Your task to perform on an android device: turn on the 24-hour format for clock Image 0: 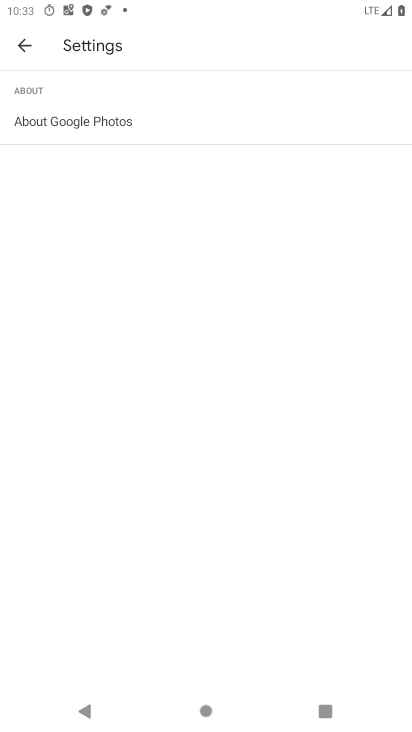
Step 0: press home button
Your task to perform on an android device: turn on the 24-hour format for clock Image 1: 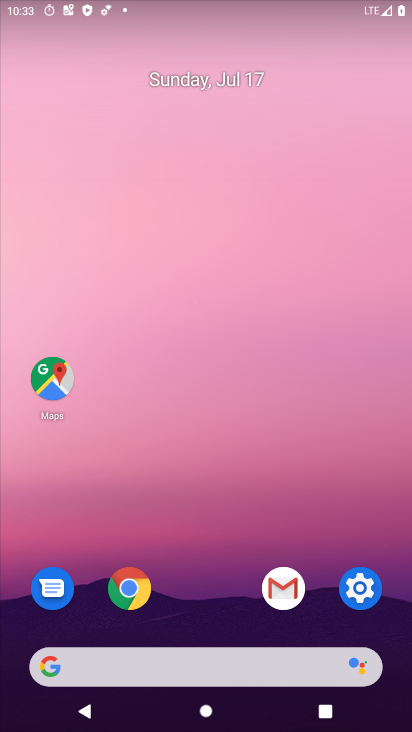
Step 1: drag from (236, 695) to (173, 218)
Your task to perform on an android device: turn on the 24-hour format for clock Image 2: 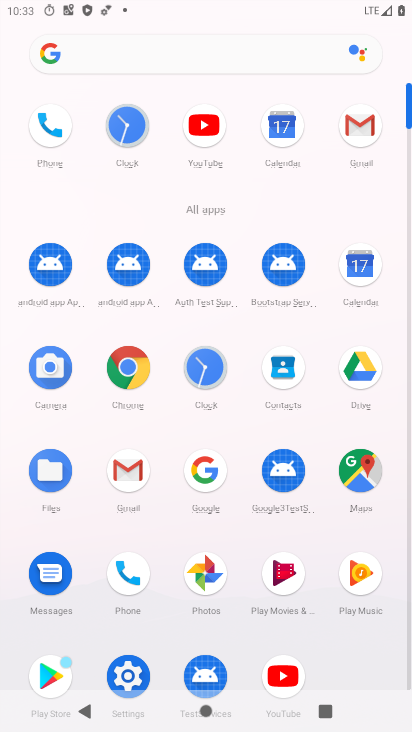
Step 2: click (221, 365)
Your task to perform on an android device: turn on the 24-hour format for clock Image 3: 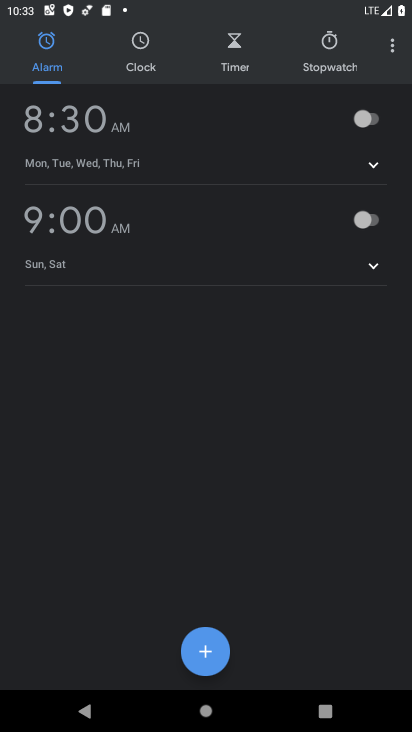
Step 3: click (389, 48)
Your task to perform on an android device: turn on the 24-hour format for clock Image 4: 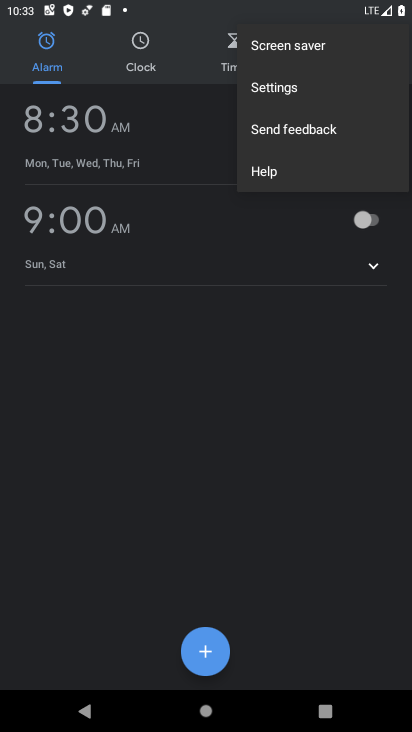
Step 4: click (258, 103)
Your task to perform on an android device: turn on the 24-hour format for clock Image 5: 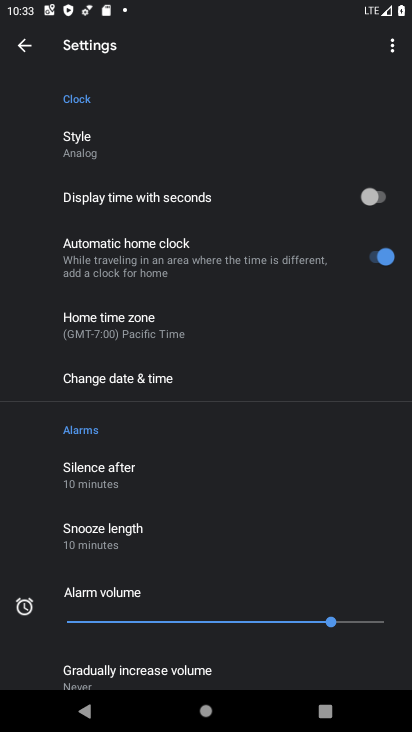
Step 5: click (174, 400)
Your task to perform on an android device: turn on the 24-hour format for clock Image 6: 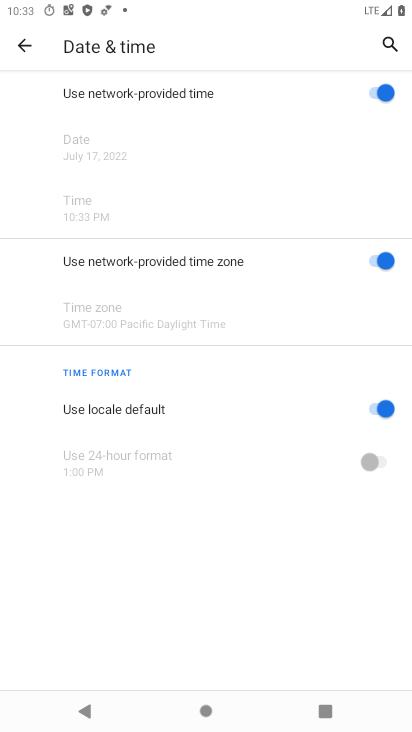
Step 6: click (365, 462)
Your task to perform on an android device: turn on the 24-hour format for clock Image 7: 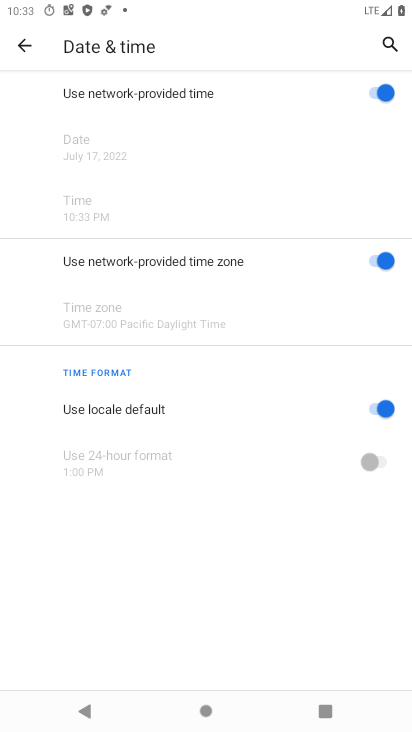
Step 7: click (371, 418)
Your task to perform on an android device: turn on the 24-hour format for clock Image 8: 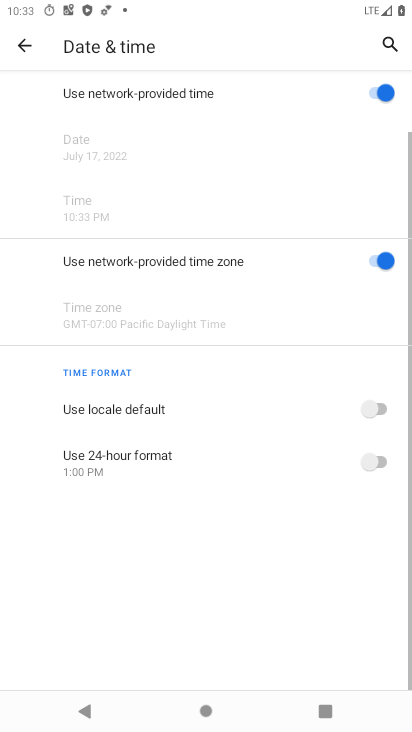
Step 8: click (370, 466)
Your task to perform on an android device: turn on the 24-hour format for clock Image 9: 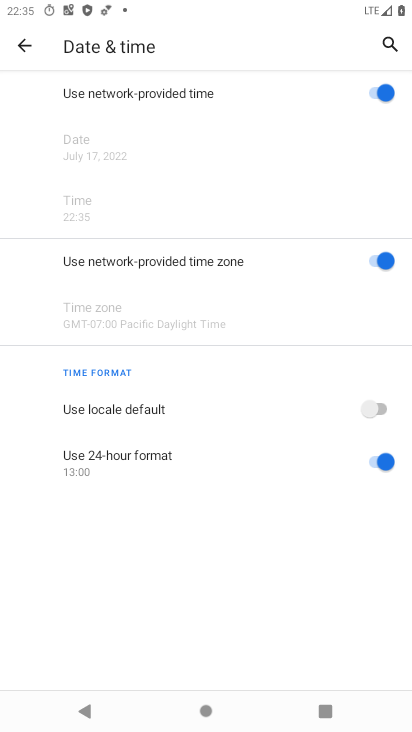
Step 9: task complete